Your task to perform on an android device: What's on my calendar today? Image 0: 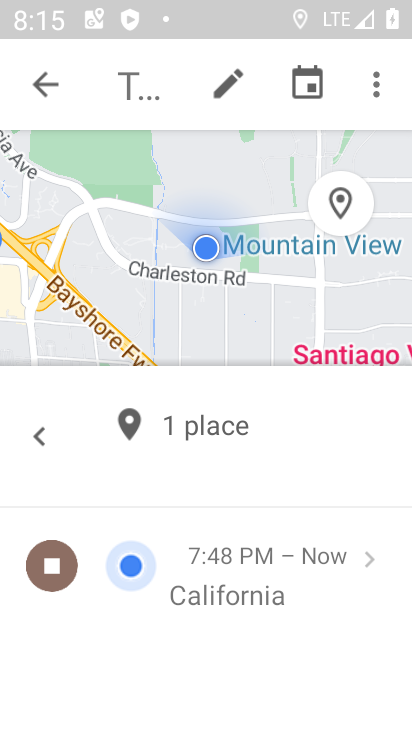
Step 0: press home button
Your task to perform on an android device: What's on my calendar today? Image 1: 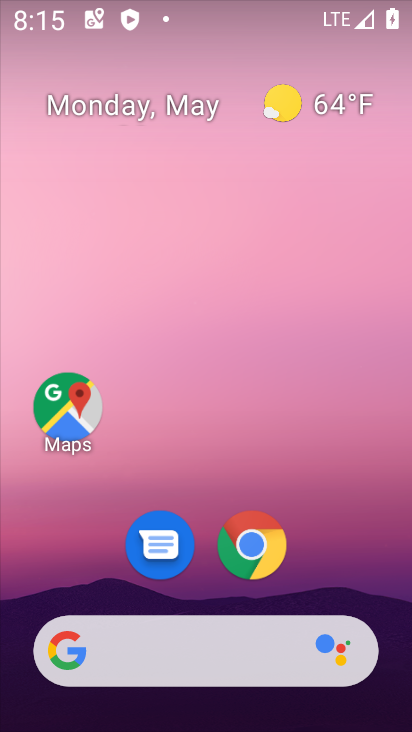
Step 1: drag from (218, 625) to (189, 4)
Your task to perform on an android device: What's on my calendar today? Image 2: 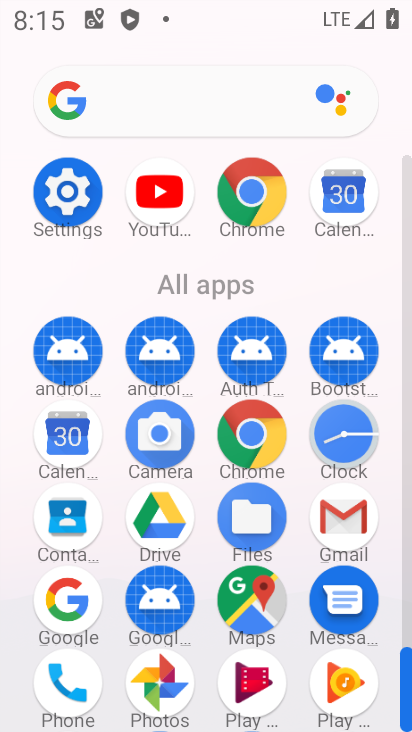
Step 2: click (349, 209)
Your task to perform on an android device: What's on my calendar today? Image 3: 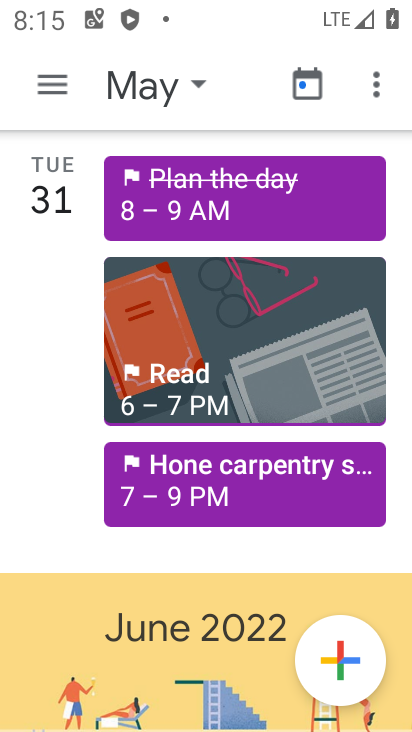
Step 3: task complete